Your task to perform on an android device: add a label to a message in the gmail app Image 0: 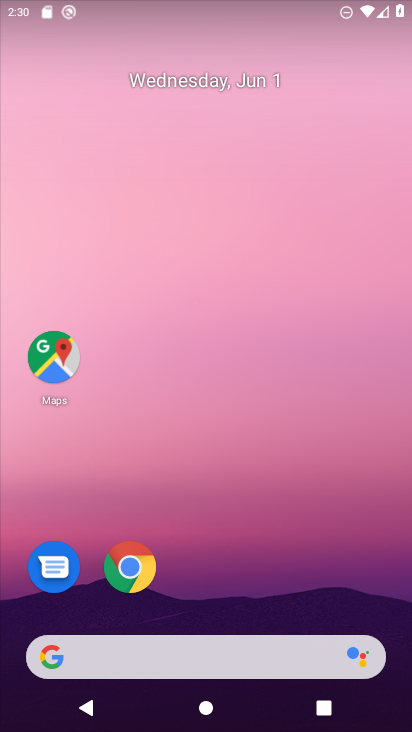
Step 0: drag from (221, 629) to (321, 116)
Your task to perform on an android device: add a label to a message in the gmail app Image 1: 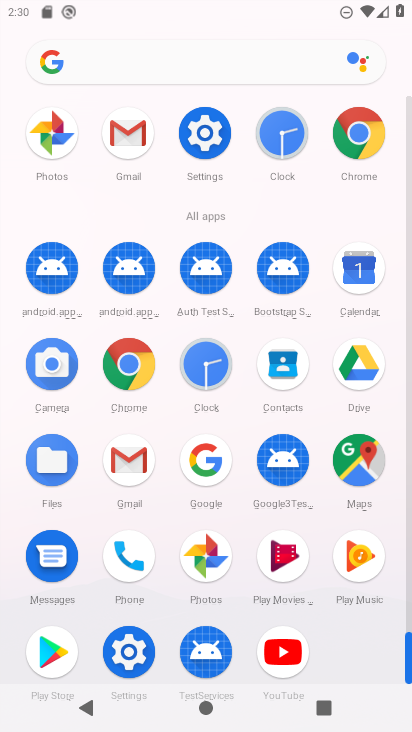
Step 1: click (141, 475)
Your task to perform on an android device: add a label to a message in the gmail app Image 2: 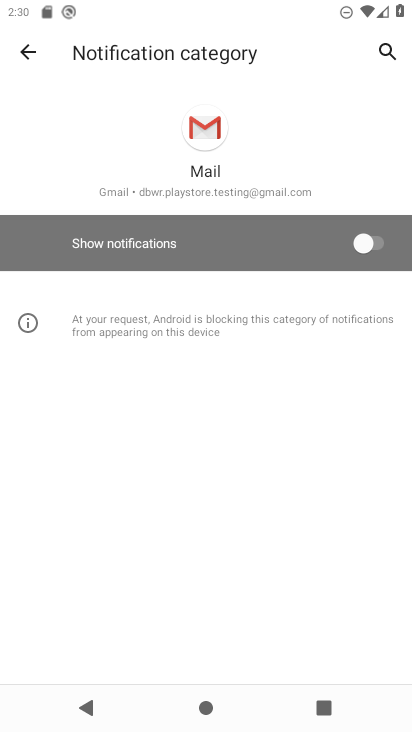
Step 2: click (30, 63)
Your task to perform on an android device: add a label to a message in the gmail app Image 3: 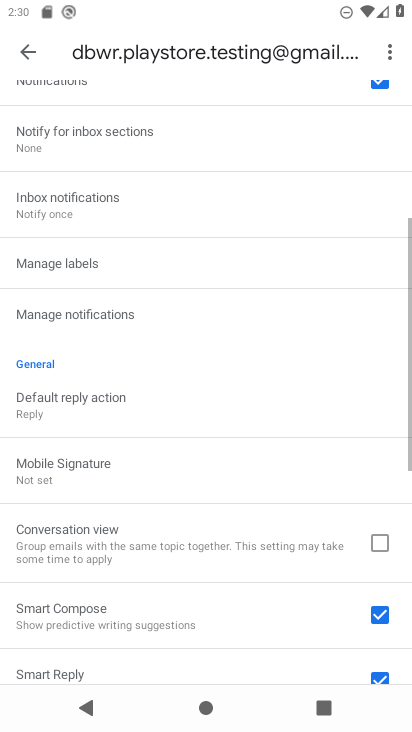
Step 3: click (33, 61)
Your task to perform on an android device: add a label to a message in the gmail app Image 4: 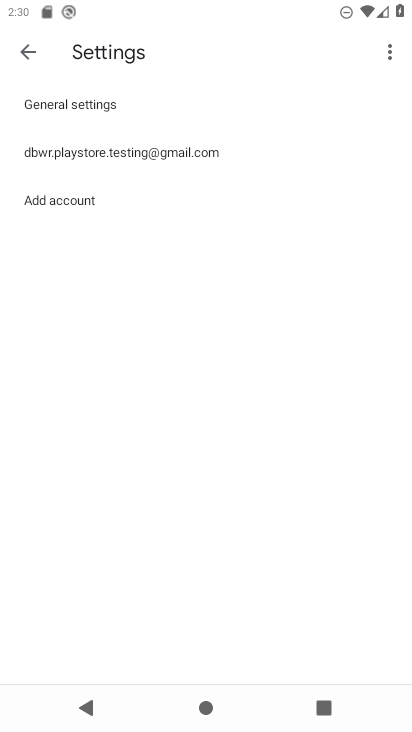
Step 4: click (33, 61)
Your task to perform on an android device: add a label to a message in the gmail app Image 5: 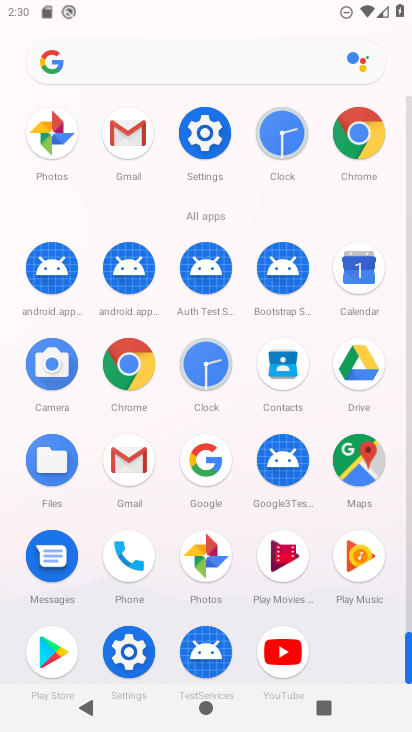
Step 5: click (143, 466)
Your task to perform on an android device: add a label to a message in the gmail app Image 6: 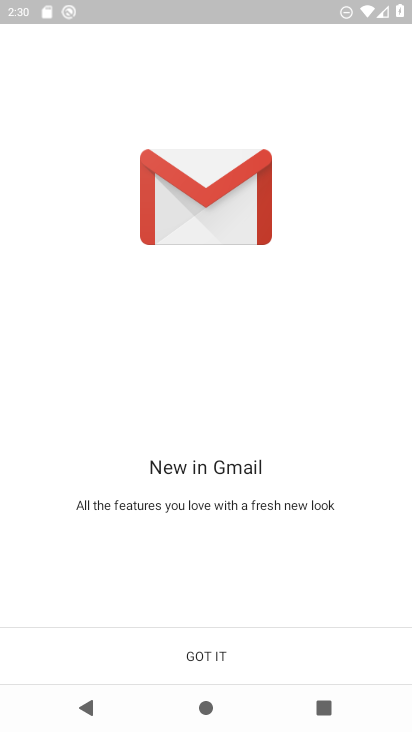
Step 6: click (241, 661)
Your task to perform on an android device: add a label to a message in the gmail app Image 7: 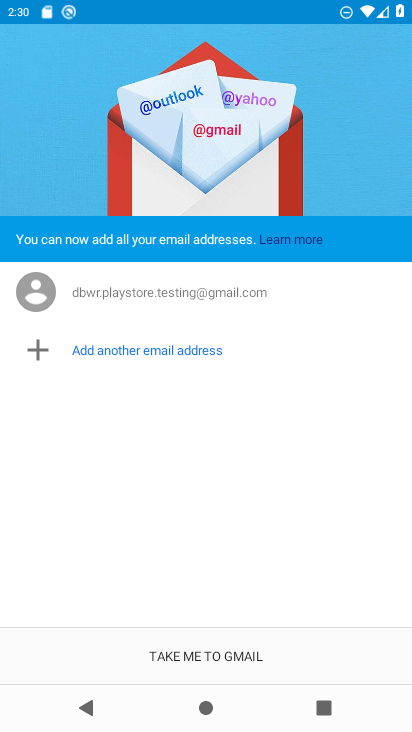
Step 7: click (286, 660)
Your task to perform on an android device: add a label to a message in the gmail app Image 8: 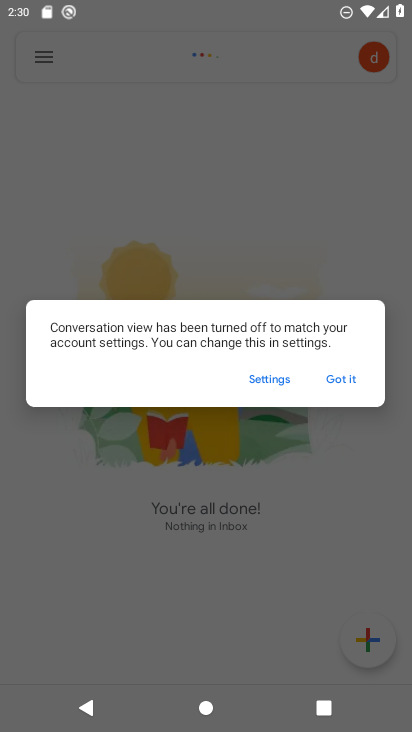
Step 8: click (351, 395)
Your task to perform on an android device: add a label to a message in the gmail app Image 9: 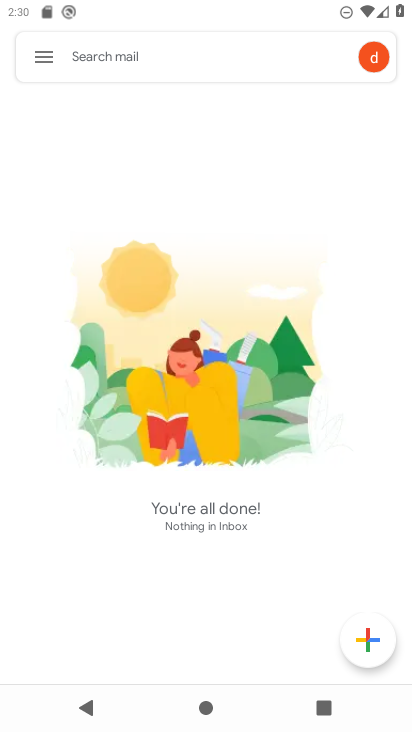
Step 9: task complete